Your task to perform on an android device: change your default location settings in chrome Image 0: 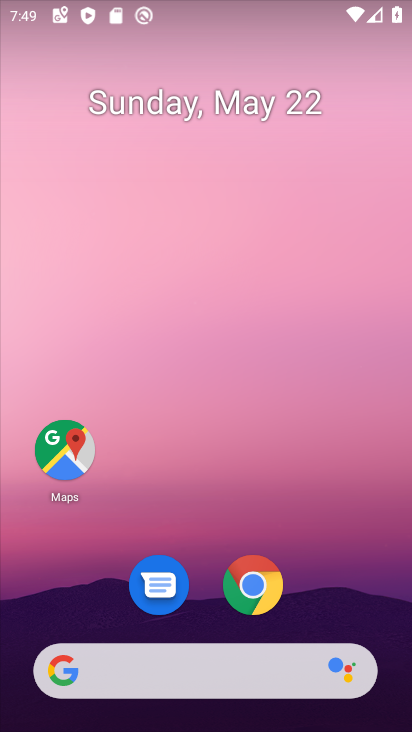
Step 0: click (250, 569)
Your task to perform on an android device: change your default location settings in chrome Image 1: 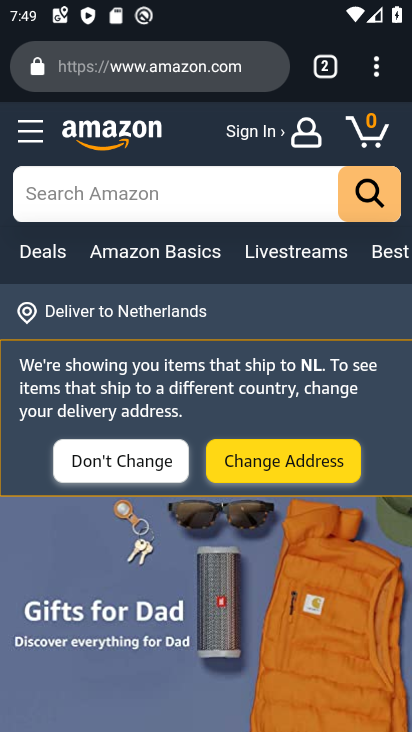
Step 1: click (369, 76)
Your task to perform on an android device: change your default location settings in chrome Image 2: 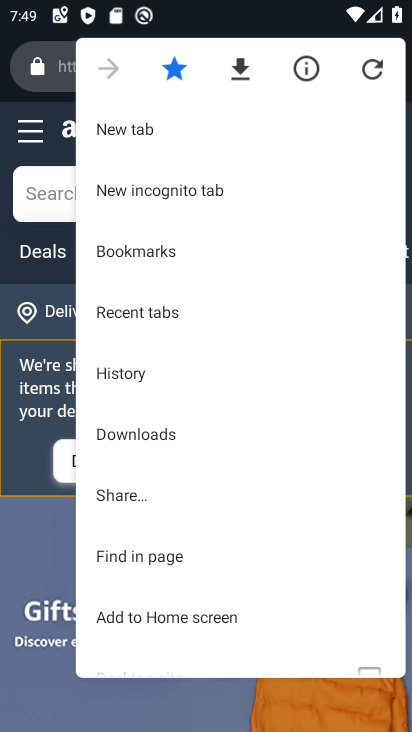
Step 2: drag from (245, 496) to (247, 242)
Your task to perform on an android device: change your default location settings in chrome Image 3: 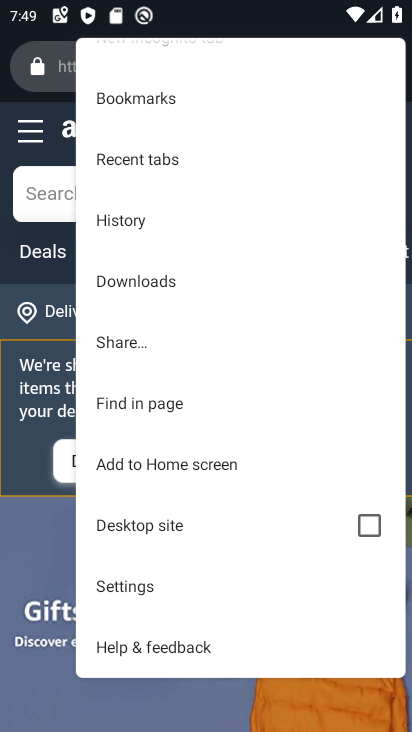
Step 3: click (169, 589)
Your task to perform on an android device: change your default location settings in chrome Image 4: 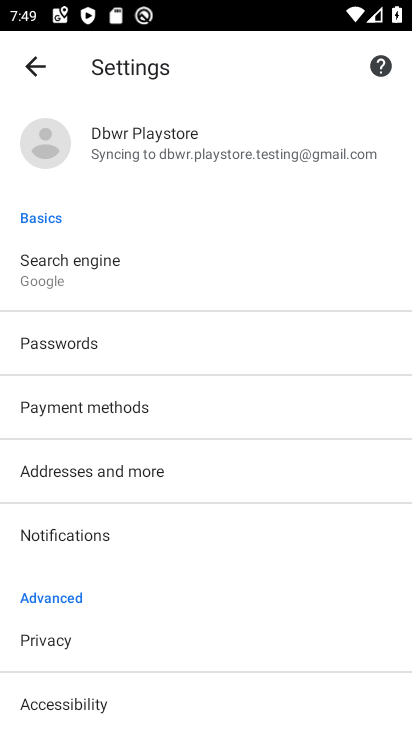
Step 4: drag from (237, 507) to (265, 217)
Your task to perform on an android device: change your default location settings in chrome Image 5: 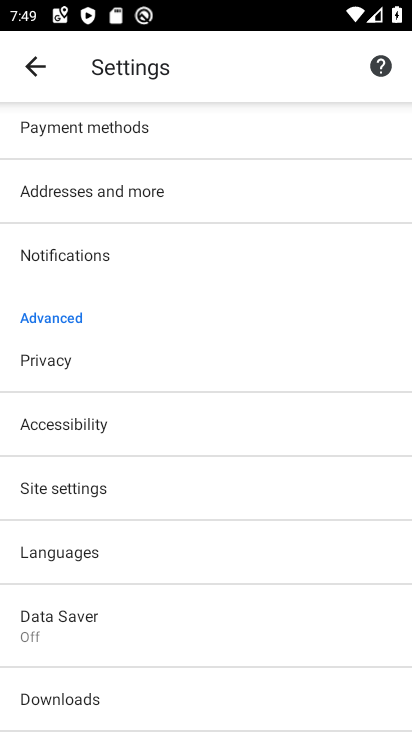
Step 5: click (179, 483)
Your task to perform on an android device: change your default location settings in chrome Image 6: 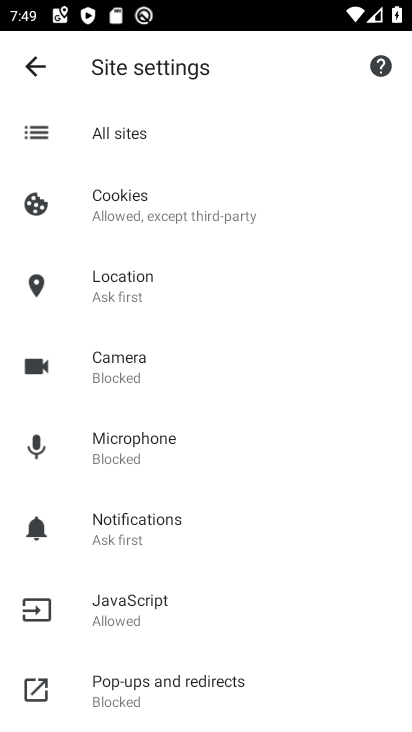
Step 6: click (202, 288)
Your task to perform on an android device: change your default location settings in chrome Image 7: 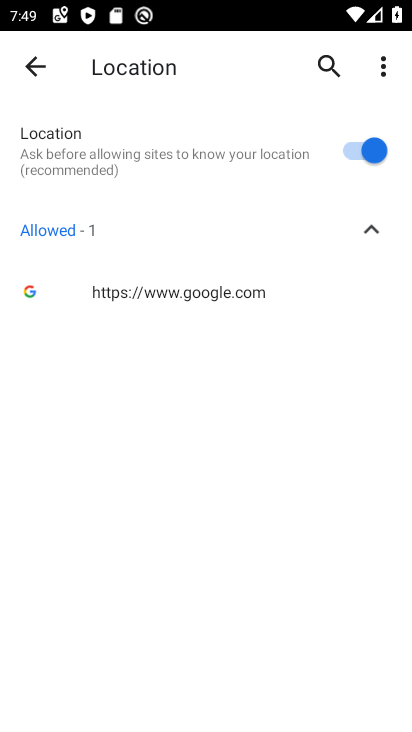
Step 7: click (358, 142)
Your task to perform on an android device: change your default location settings in chrome Image 8: 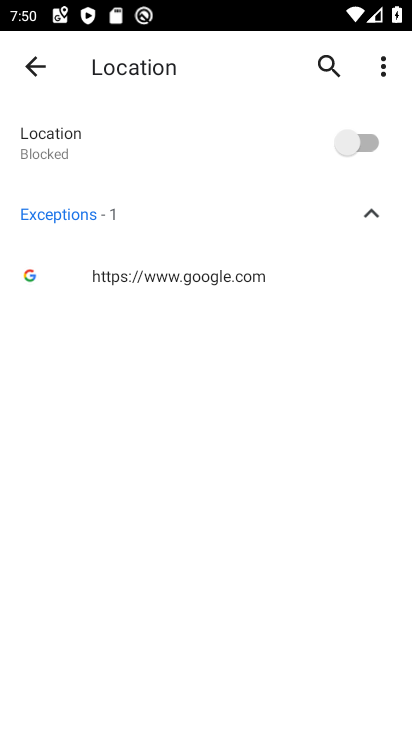
Step 8: task complete